Your task to perform on an android device: Go to Yahoo.com Image 0: 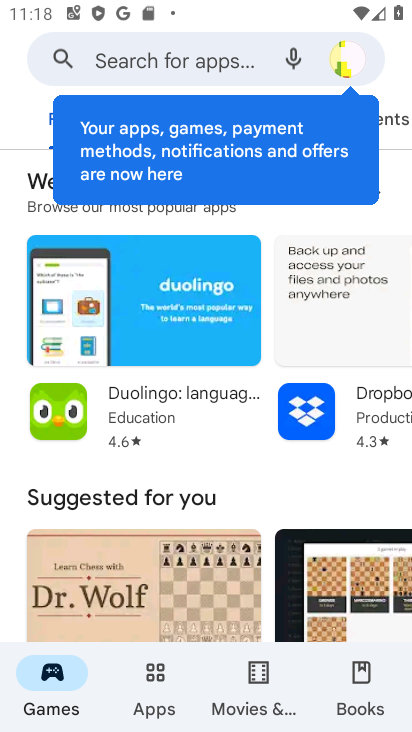
Step 0: press home button
Your task to perform on an android device: Go to Yahoo.com Image 1: 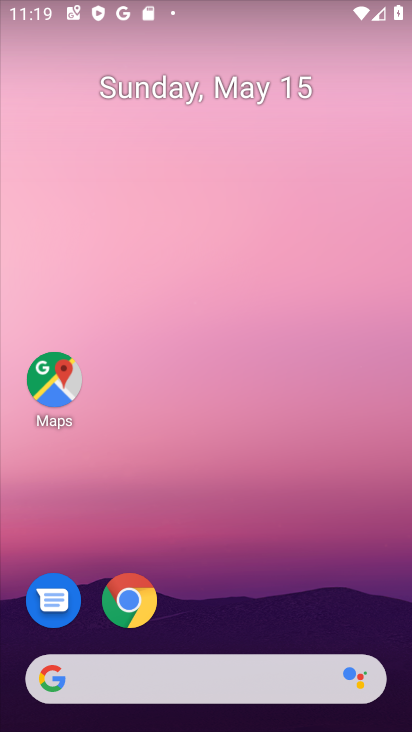
Step 1: click (142, 620)
Your task to perform on an android device: Go to Yahoo.com Image 2: 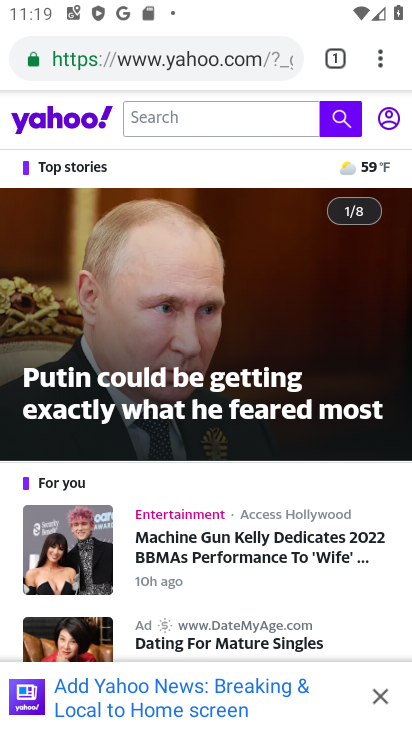
Step 2: task complete